Your task to perform on an android device: visit the assistant section in the google photos Image 0: 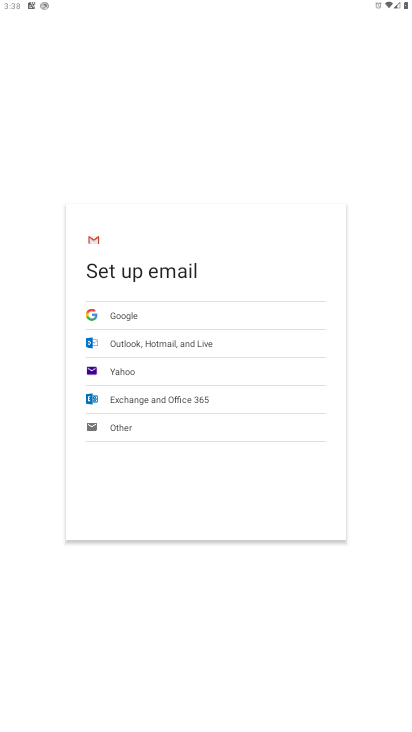
Step 0: press home button
Your task to perform on an android device: visit the assistant section in the google photos Image 1: 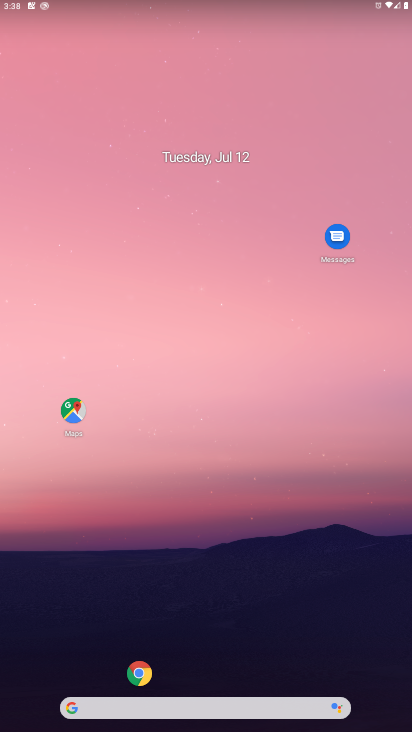
Step 1: drag from (186, 386) to (407, 15)
Your task to perform on an android device: visit the assistant section in the google photos Image 2: 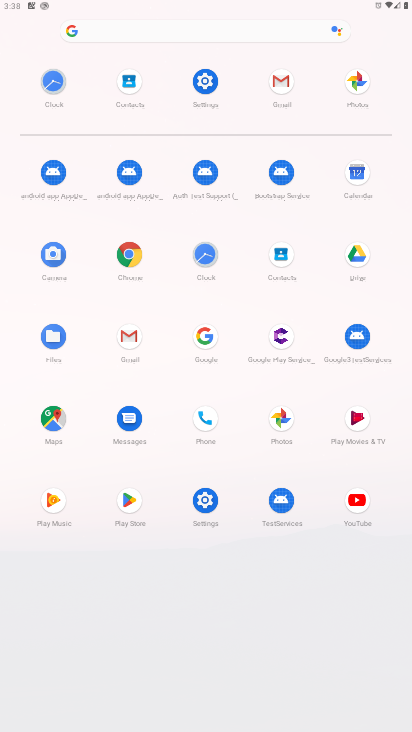
Step 2: click (290, 406)
Your task to perform on an android device: visit the assistant section in the google photos Image 3: 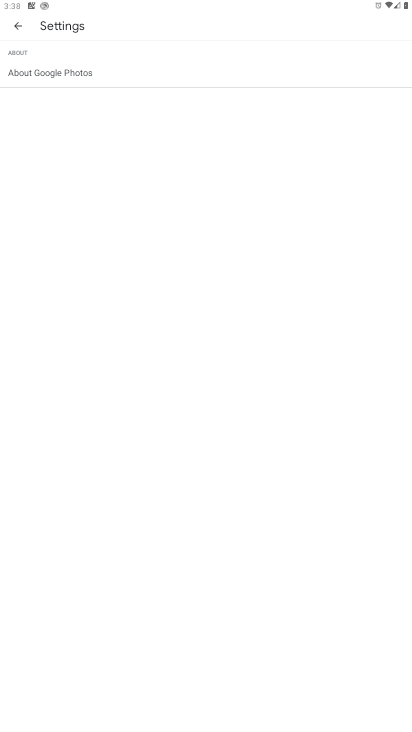
Step 3: click (17, 21)
Your task to perform on an android device: visit the assistant section in the google photos Image 4: 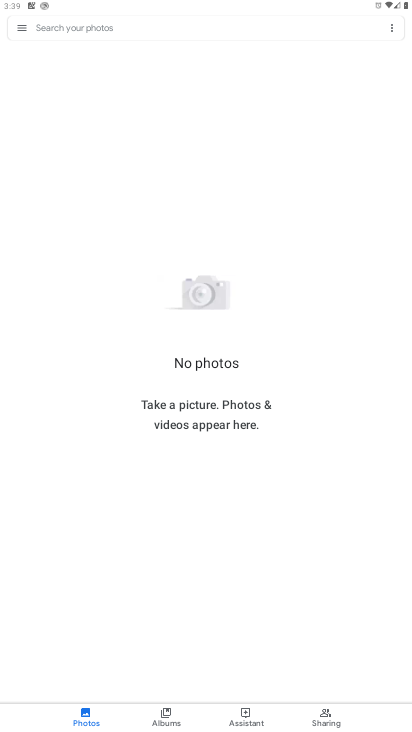
Step 4: click (248, 716)
Your task to perform on an android device: visit the assistant section in the google photos Image 5: 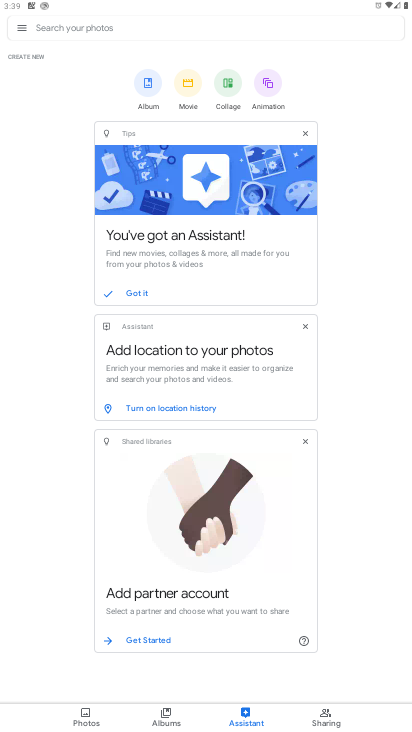
Step 5: task complete